Your task to perform on an android device: See recent photos Image 0: 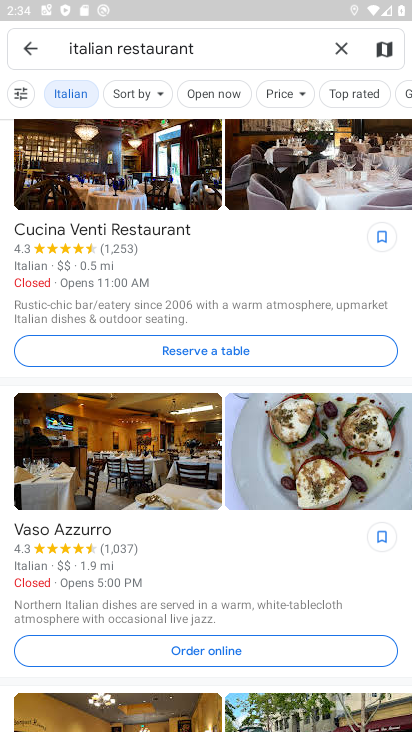
Step 0: press back button
Your task to perform on an android device: See recent photos Image 1: 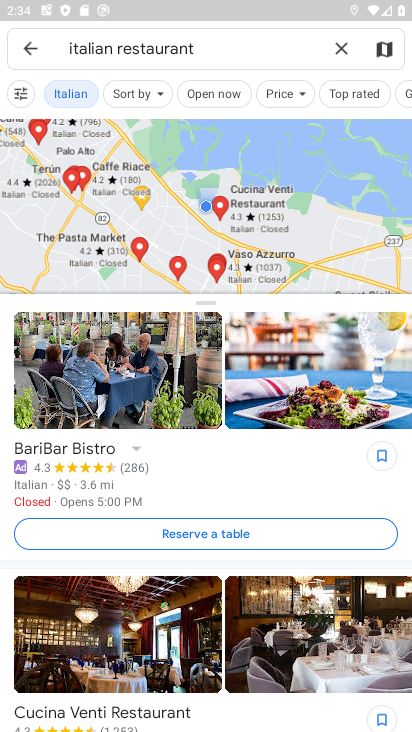
Step 1: press back button
Your task to perform on an android device: See recent photos Image 2: 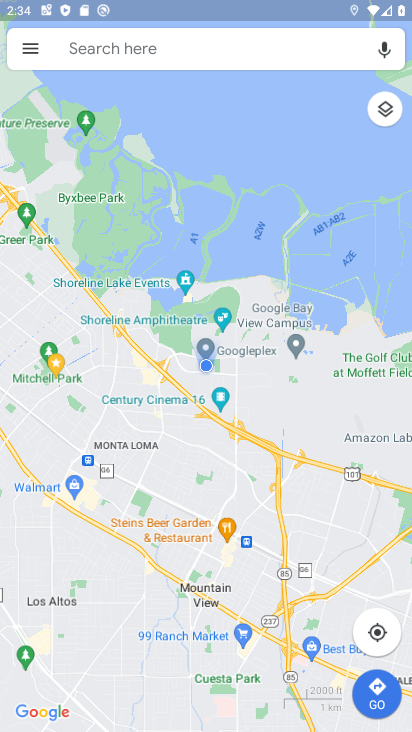
Step 2: press back button
Your task to perform on an android device: See recent photos Image 3: 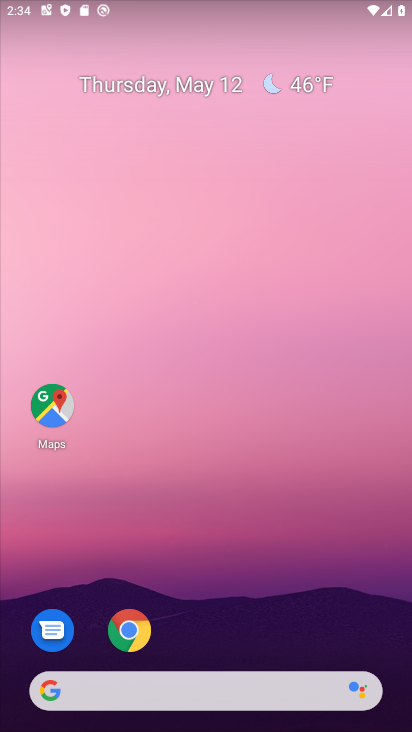
Step 3: drag from (242, 589) to (212, 136)
Your task to perform on an android device: See recent photos Image 4: 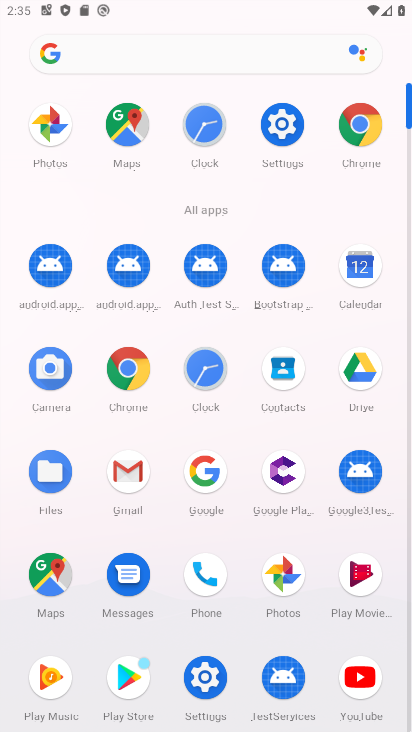
Step 4: click (48, 121)
Your task to perform on an android device: See recent photos Image 5: 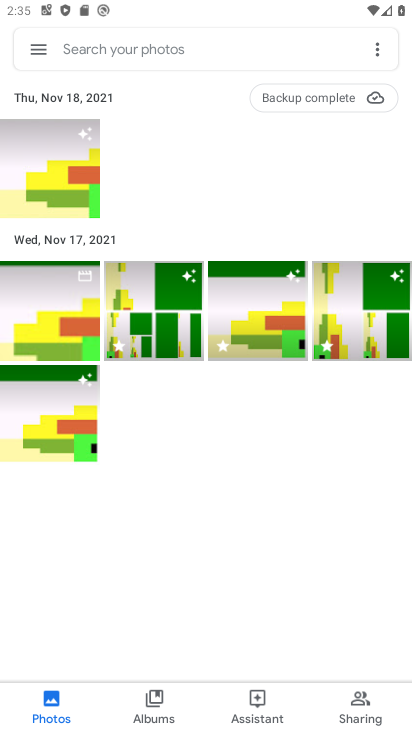
Step 5: click (61, 149)
Your task to perform on an android device: See recent photos Image 6: 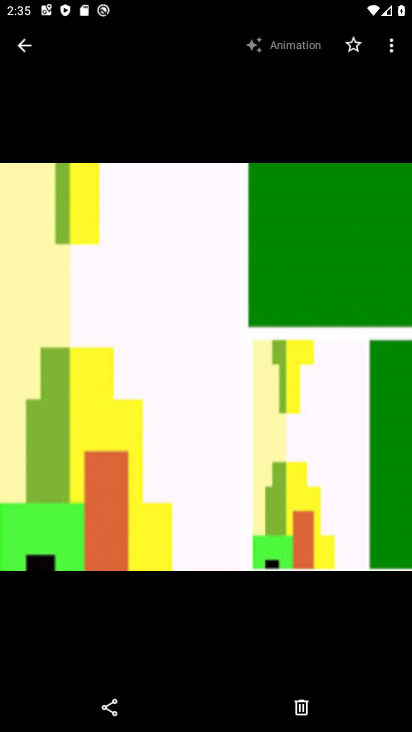
Step 6: task complete